Your task to perform on an android device: Open display settings Image 0: 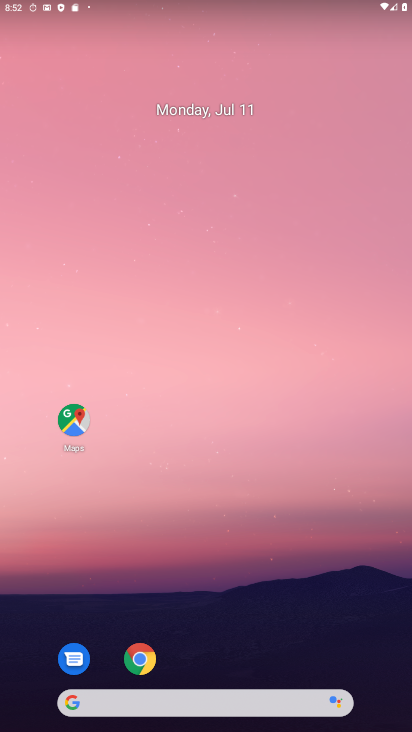
Step 0: drag from (206, 371) to (172, 115)
Your task to perform on an android device: Open display settings Image 1: 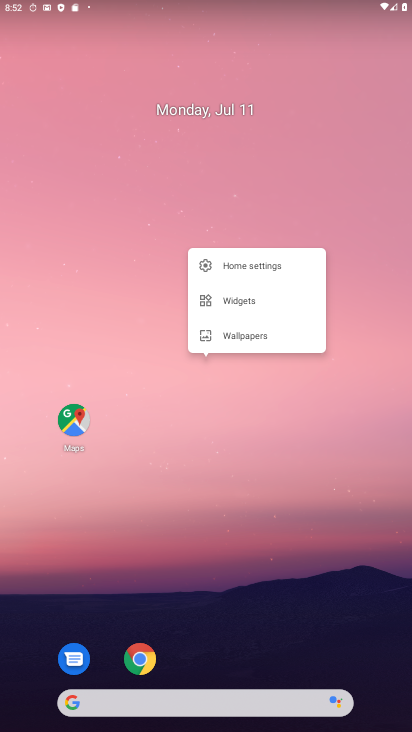
Step 1: click (115, 431)
Your task to perform on an android device: Open display settings Image 2: 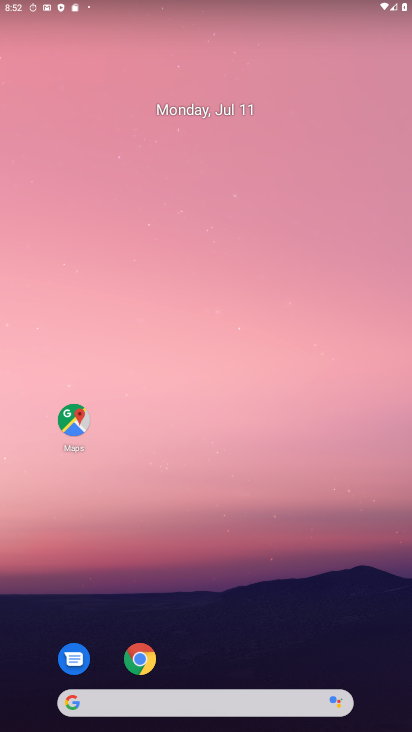
Step 2: drag from (141, 336) to (129, 161)
Your task to perform on an android device: Open display settings Image 3: 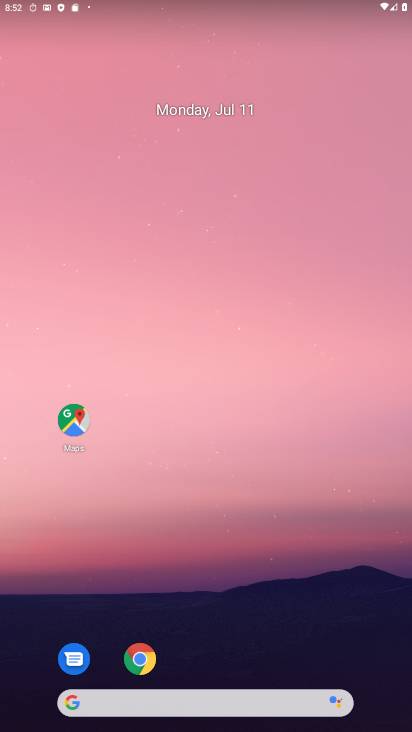
Step 3: drag from (207, 669) to (180, 173)
Your task to perform on an android device: Open display settings Image 4: 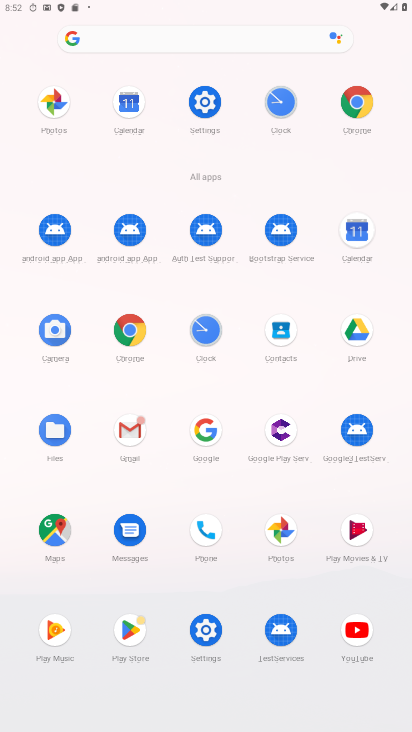
Step 4: click (213, 615)
Your task to perform on an android device: Open display settings Image 5: 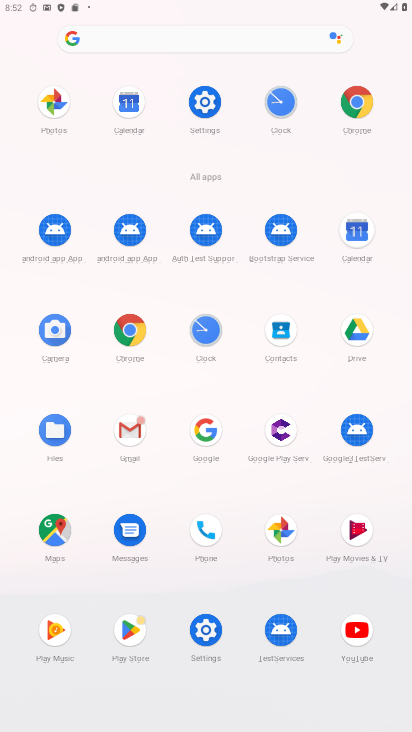
Step 5: click (214, 628)
Your task to perform on an android device: Open display settings Image 6: 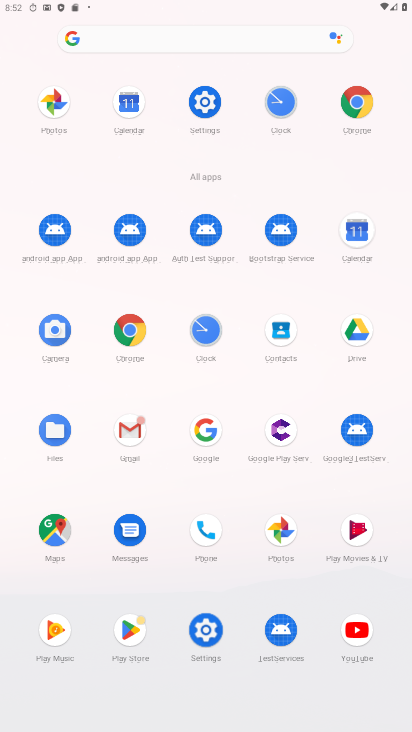
Step 6: click (214, 629)
Your task to perform on an android device: Open display settings Image 7: 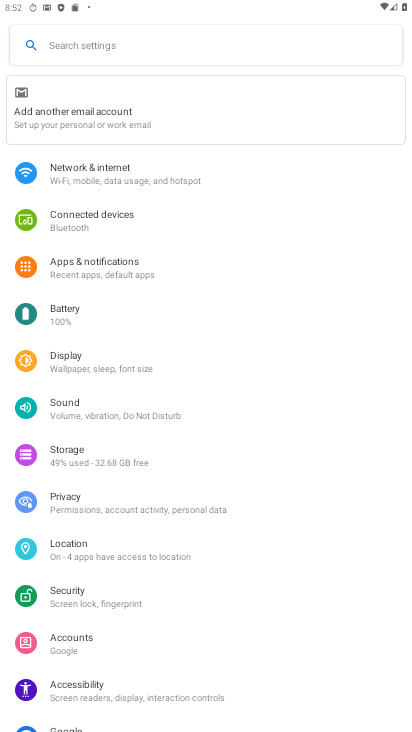
Step 7: click (81, 354)
Your task to perform on an android device: Open display settings Image 8: 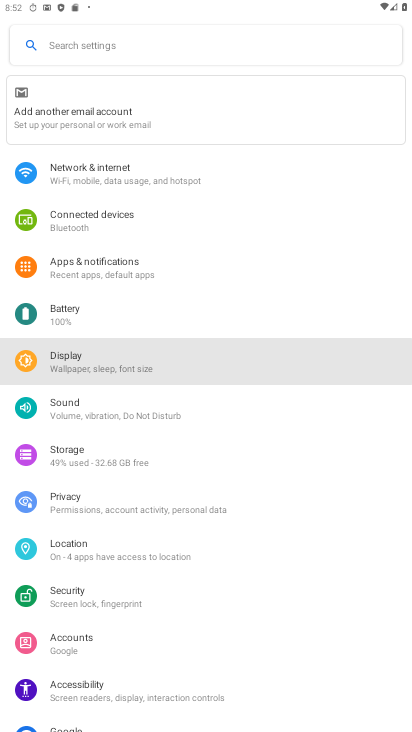
Step 8: click (81, 354)
Your task to perform on an android device: Open display settings Image 9: 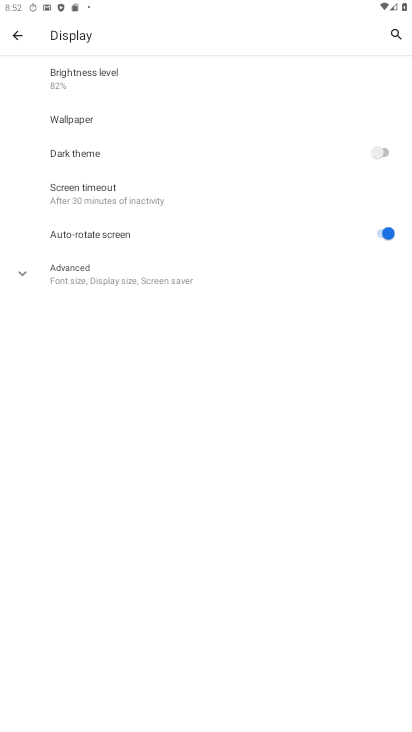
Step 9: task complete